Your task to perform on an android device: turn on airplane mode Image 0: 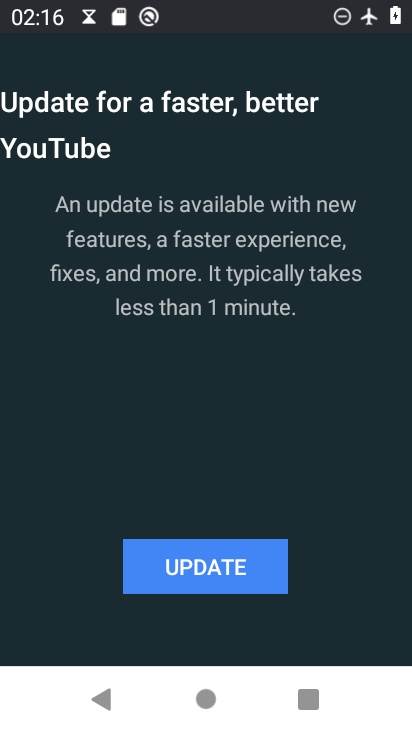
Step 0: press home button
Your task to perform on an android device: turn on airplane mode Image 1: 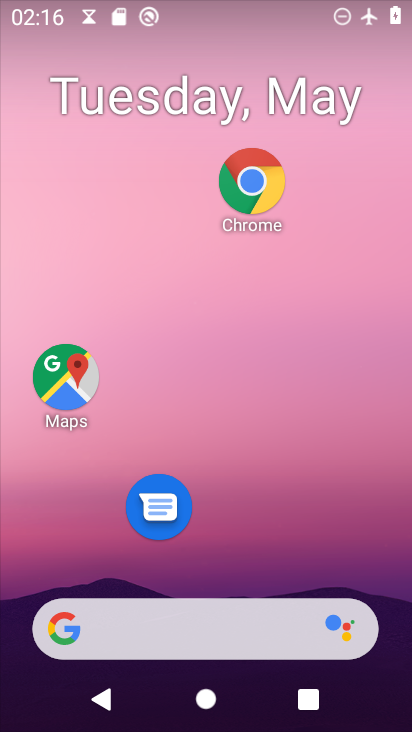
Step 1: drag from (283, 522) to (323, 333)
Your task to perform on an android device: turn on airplane mode Image 2: 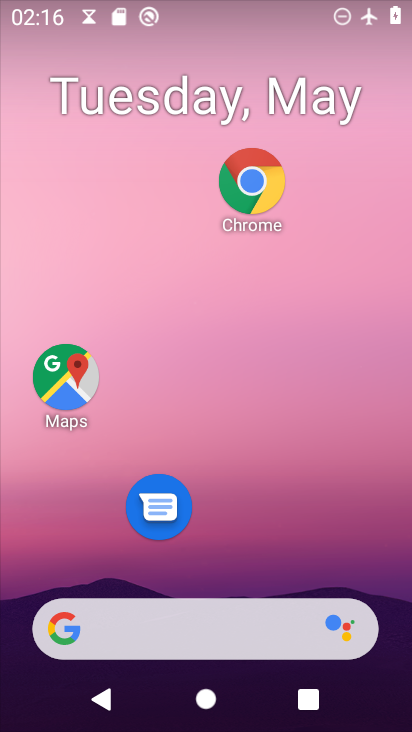
Step 2: drag from (288, 559) to (313, 208)
Your task to perform on an android device: turn on airplane mode Image 3: 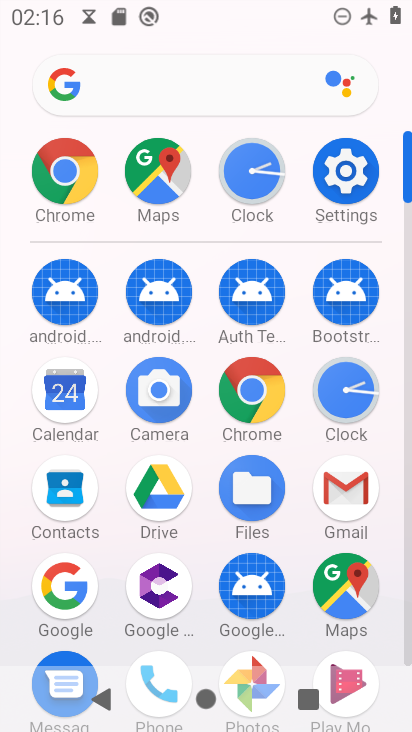
Step 3: click (350, 167)
Your task to perform on an android device: turn on airplane mode Image 4: 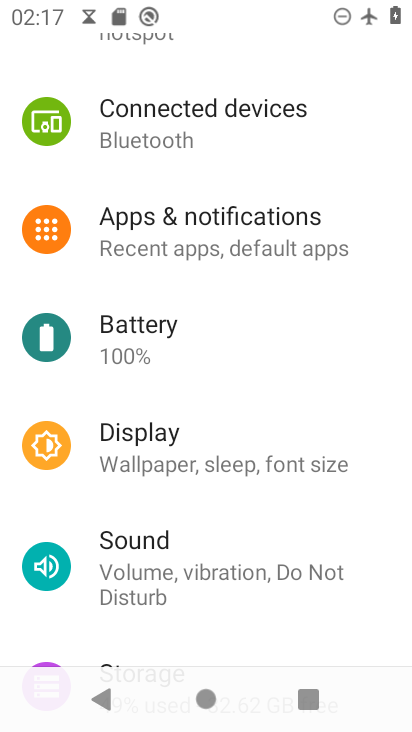
Step 4: drag from (270, 154) to (270, 240)
Your task to perform on an android device: turn on airplane mode Image 5: 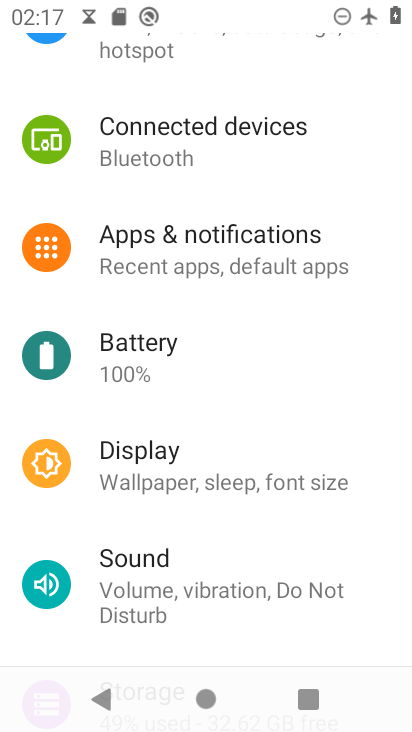
Step 5: drag from (270, 267) to (260, 420)
Your task to perform on an android device: turn on airplane mode Image 6: 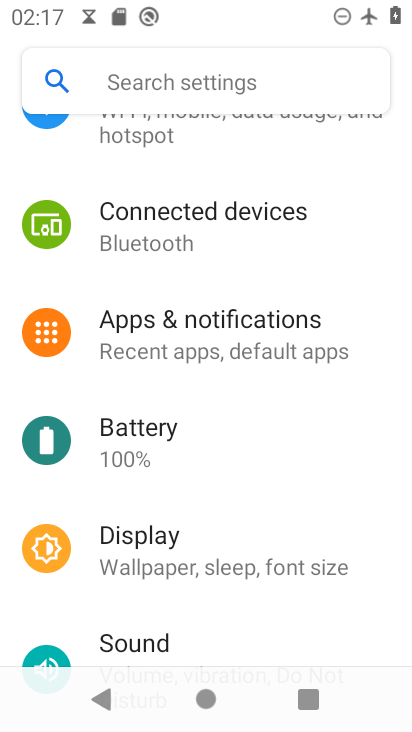
Step 6: drag from (218, 188) to (225, 254)
Your task to perform on an android device: turn on airplane mode Image 7: 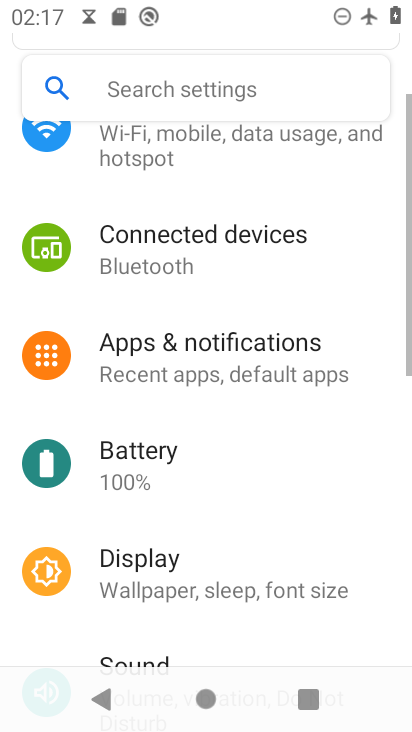
Step 7: drag from (221, 296) to (210, 563)
Your task to perform on an android device: turn on airplane mode Image 8: 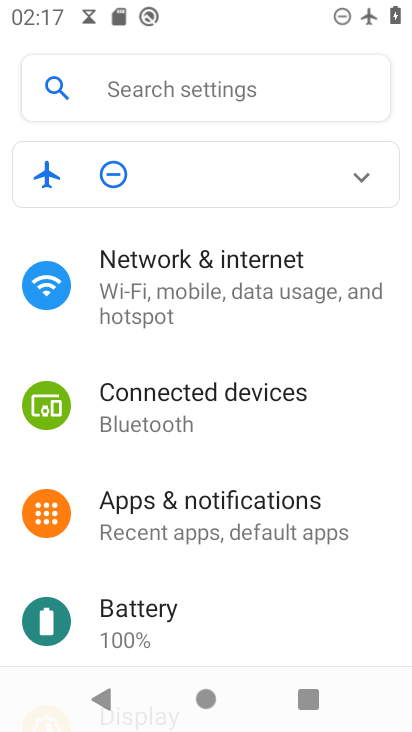
Step 8: click (230, 282)
Your task to perform on an android device: turn on airplane mode Image 9: 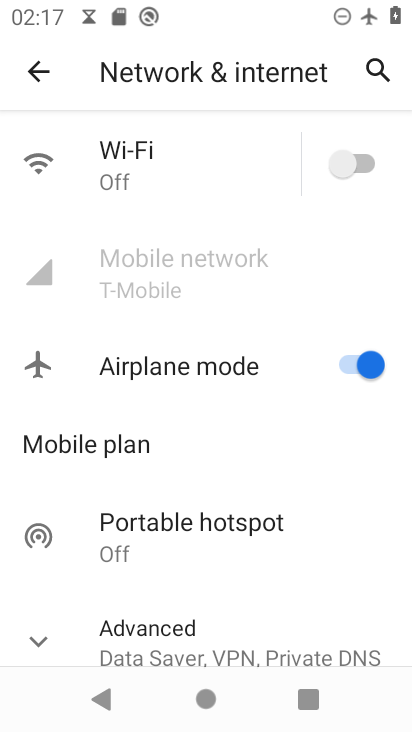
Step 9: task complete